Your task to perform on an android device: Open Chrome and go to settings Image 0: 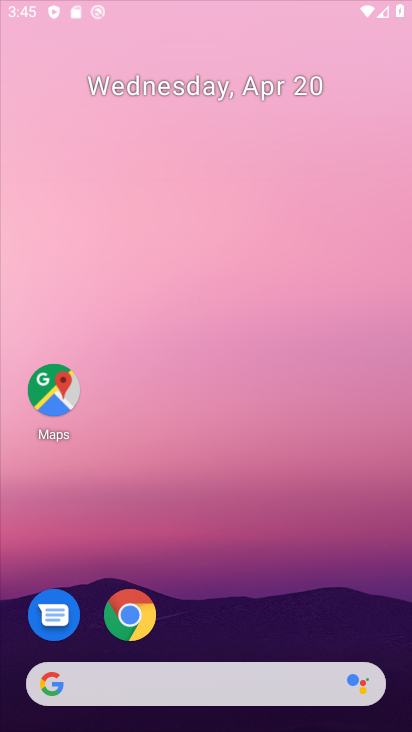
Step 0: click (152, 607)
Your task to perform on an android device: Open Chrome and go to settings Image 1: 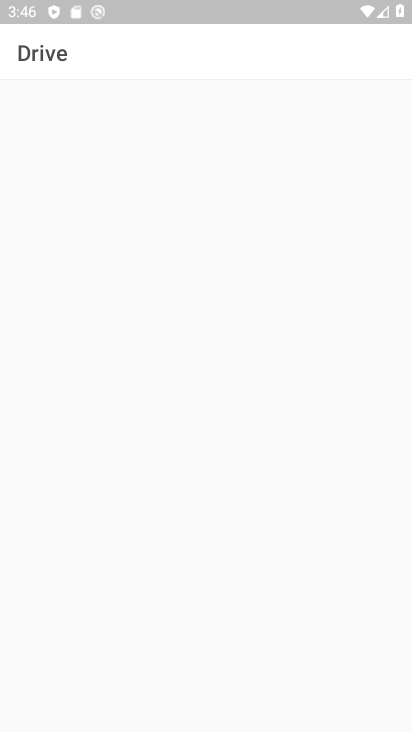
Step 1: press back button
Your task to perform on an android device: Open Chrome and go to settings Image 2: 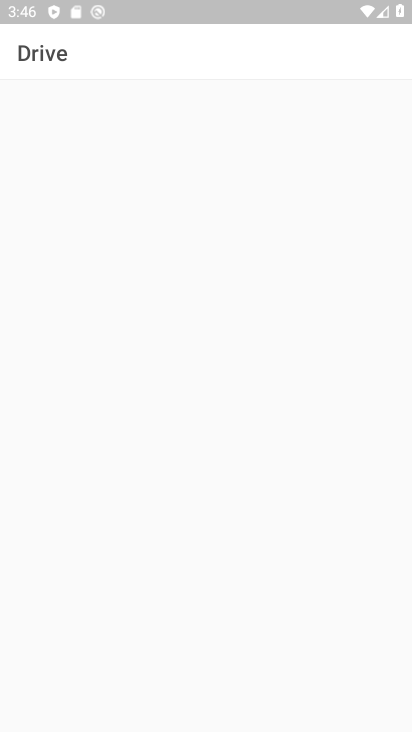
Step 2: press home button
Your task to perform on an android device: Open Chrome and go to settings Image 3: 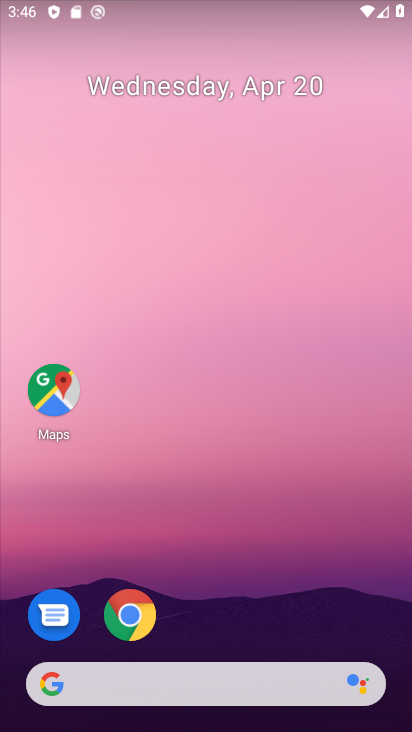
Step 3: click (128, 610)
Your task to perform on an android device: Open Chrome and go to settings Image 4: 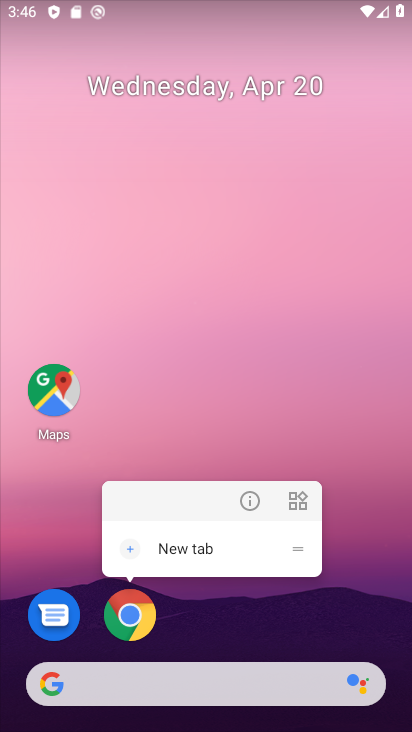
Step 4: click (125, 607)
Your task to perform on an android device: Open Chrome and go to settings Image 5: 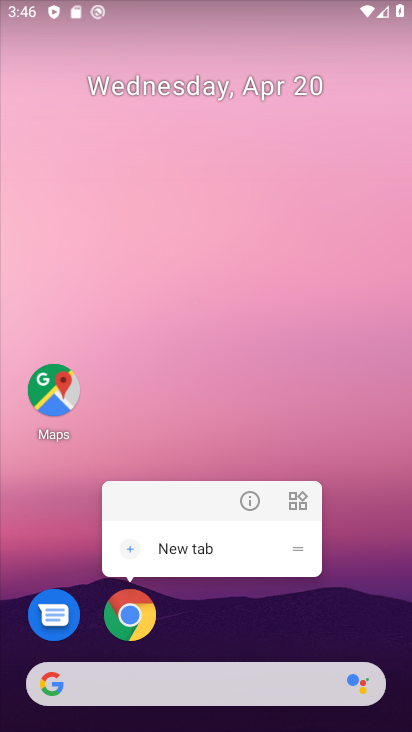
Step 5: click (131, 616)
Your task to perform on an android device: Open Chrome and go to settings Image 6: 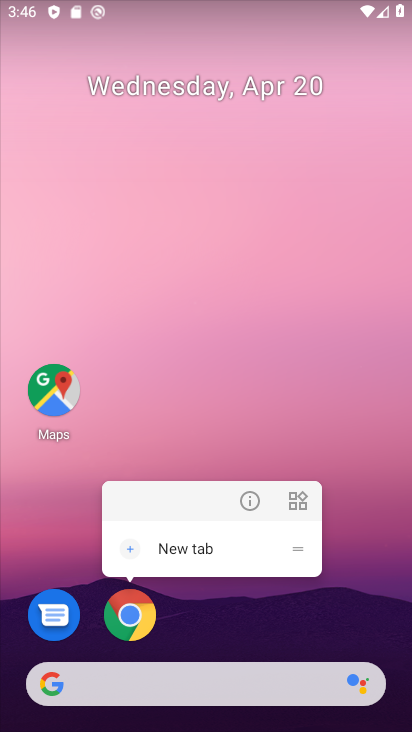
Step 6: click (133, 622)
Your task to perform on an android device: Open Chrome and go to settings Image 7: 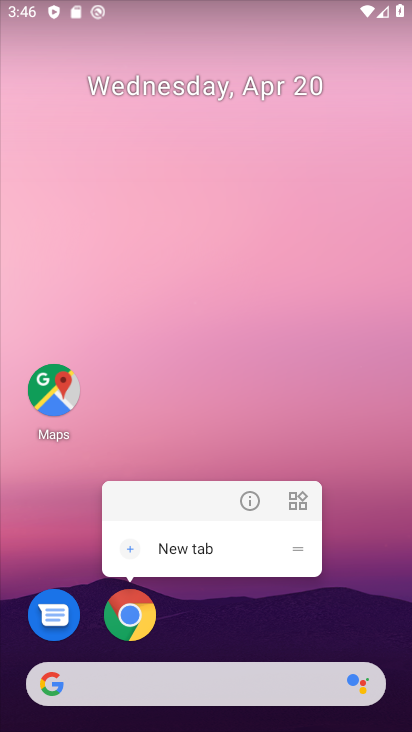
Step 7: click (128, 614)
Your task to perform on an android device: Open Chrome and go to settings Image 8: 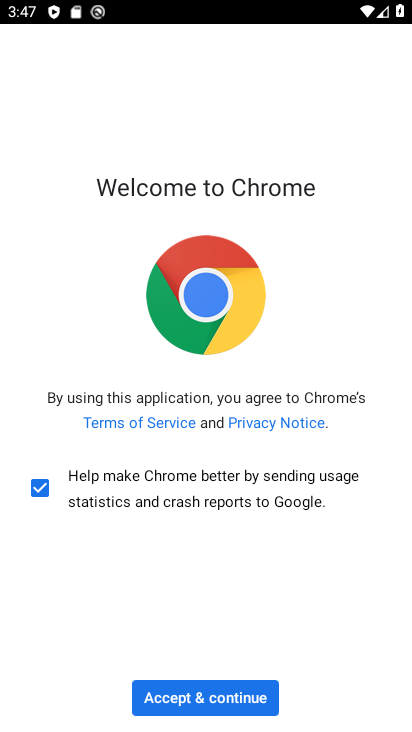
Step 8: click (182, 701)
Your task to perform on an android device: Open Chrome and go to settings Image 9: 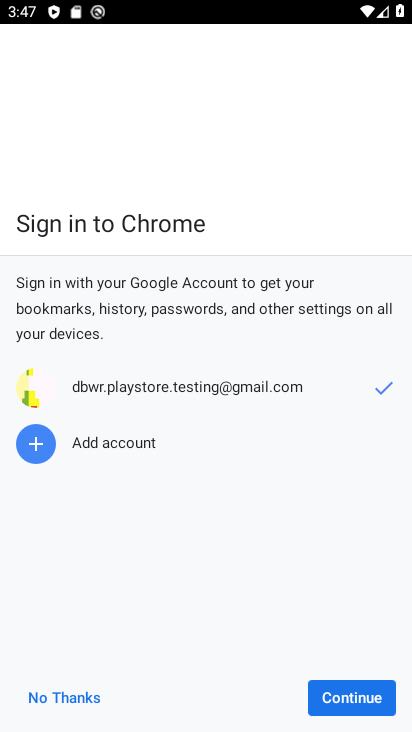
Step 9: click (356, 701)
Your task to perform on an android device: Open Chrome and go to settings Image 10: 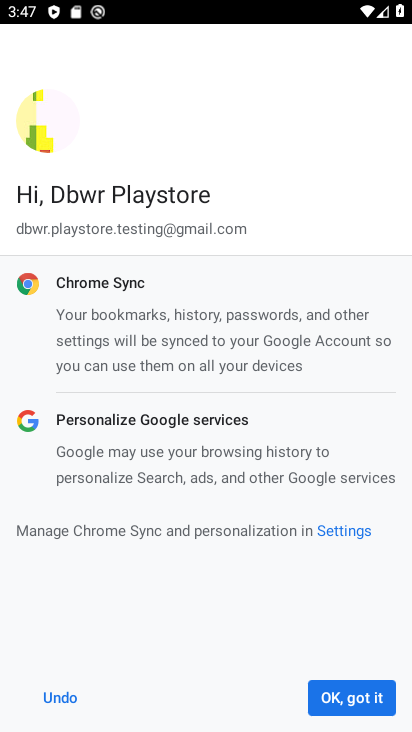
Step 10: click (356, 701)
Your task to perform on an android device: Open Chrome and go to settings Image 11: 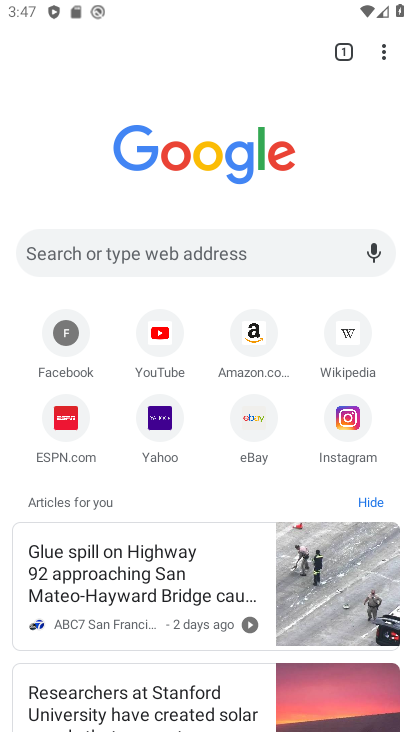
Step 11: click (380, 48)
Your task to perform on an android device: Open Chrome and go to settings Image 12: 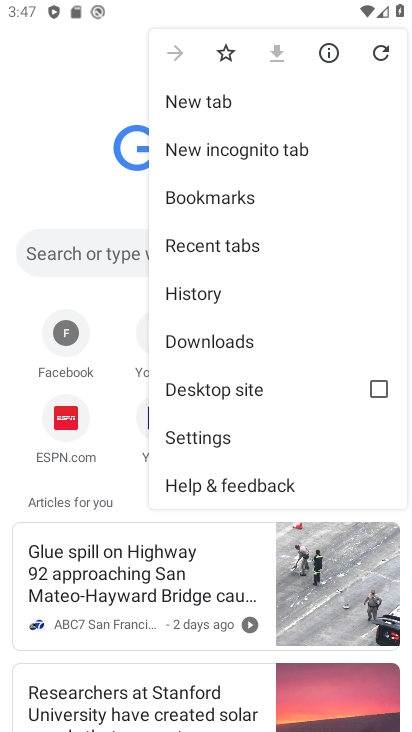
Step 12: click (206, 447)
Your task to perform on an android device: Open Chrome and go to settings Image 13: 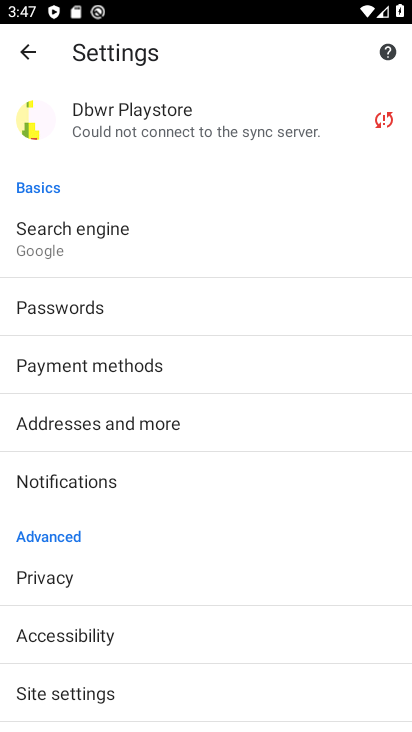
Step 13: task complete